Your task to perform on an android device: Open privacy settings Image 0: 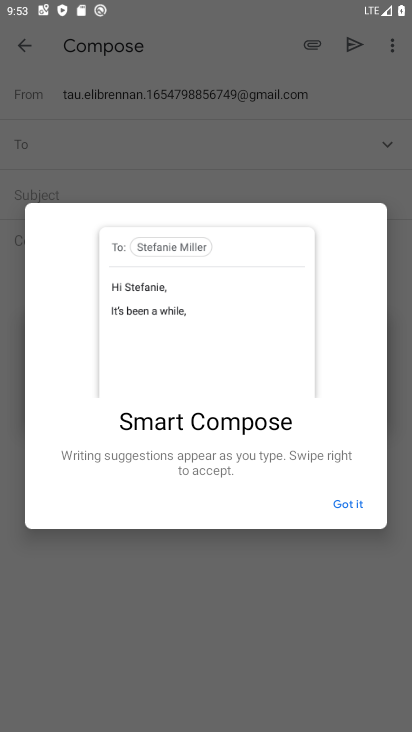
Step 0: press home button
Your task to perform on an android device: Open privacy settings Image 1: 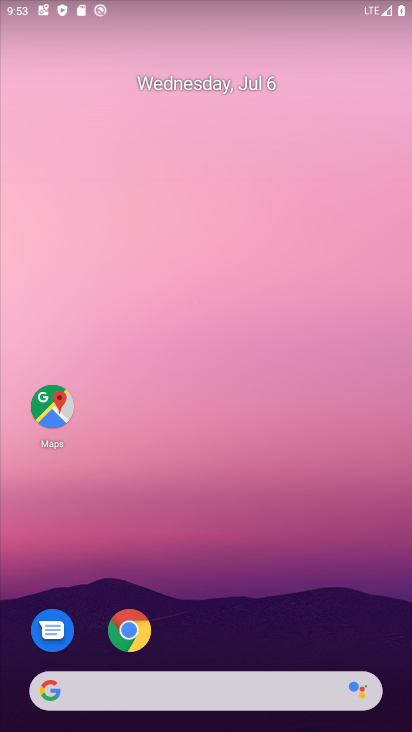
Step 1: drag from (369, 633) to (298, 4)
Your task to perform on an android device: Open privacy settings Image 2: 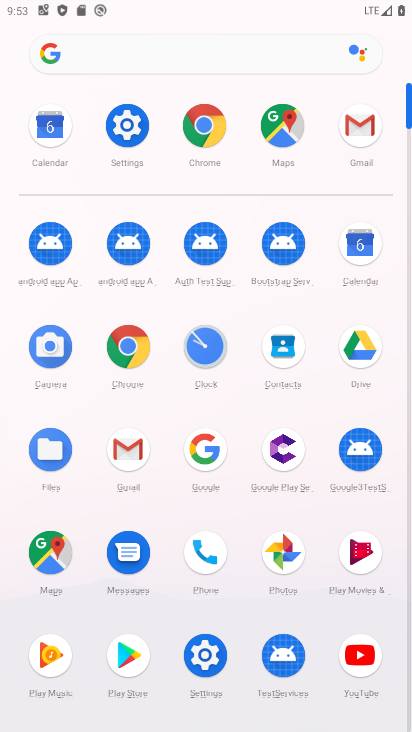
Step 2: click (204, 656)
Your task to perform on an android device: Open privacy settings Image 3: 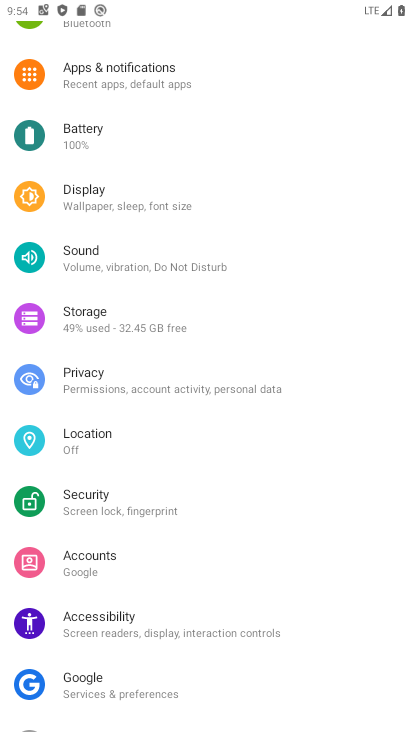
Step 3: click (83, 370)
Your task to perform on an android device: Open privacy settings Image 4: 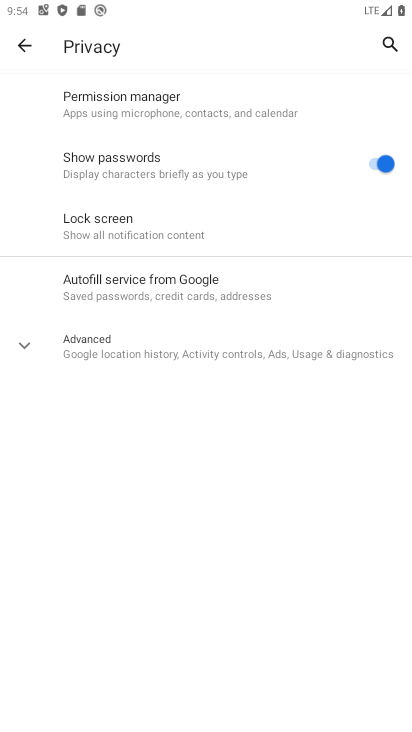
Step 4: click (21, 347)
Your task to perform on an android device: Open privacy settings Image 5: 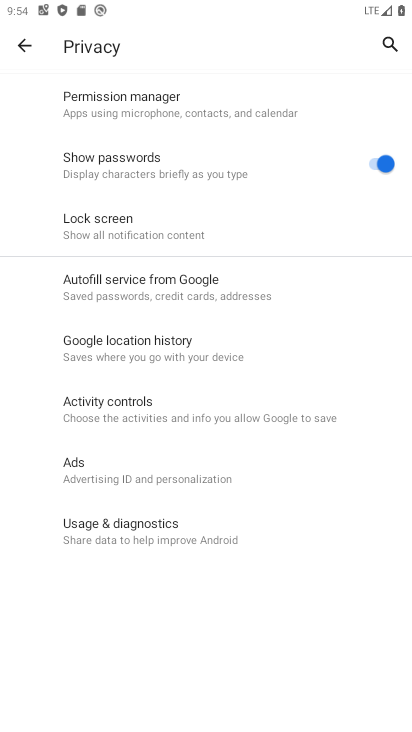
Step 5: task complete